Your task to perform on an android device: Open display settings Image 0: 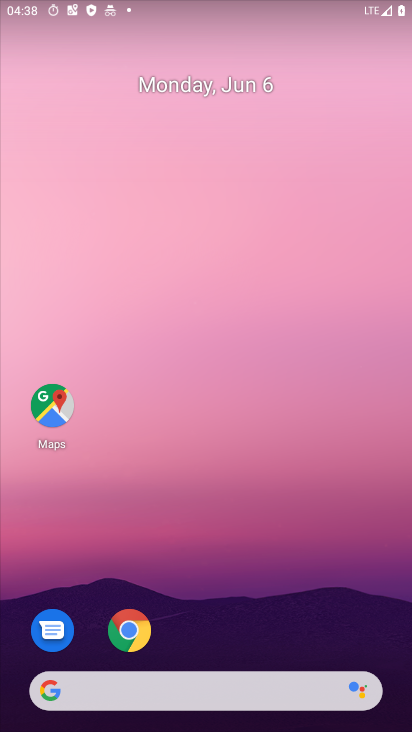
Step 0: drag from (256, 627) to (196, 61)
Your task to perform on an android device: Open display settings Image 1: 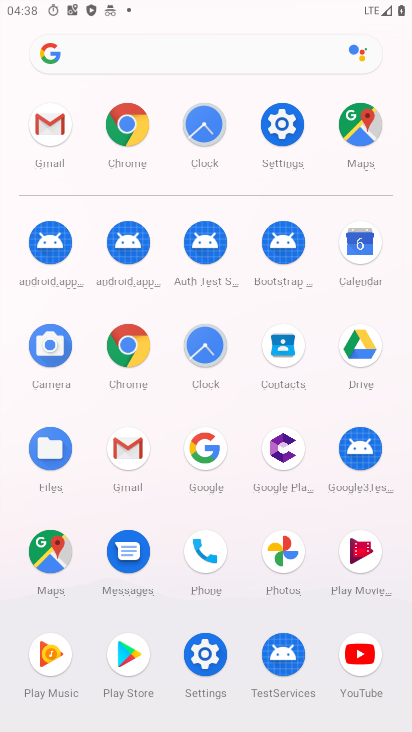
Step 1: click (190, 662)
Your task to perform on an android device: Open display settings Image 2: 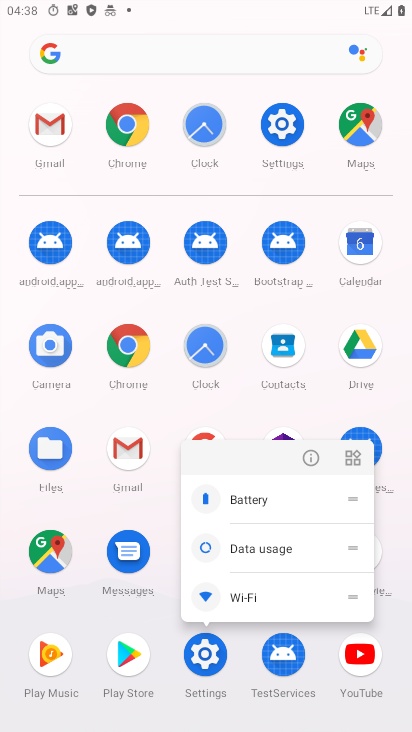
Step 2: click (206, 653)
Your task to perform on an android device: Open display settings Image 3: 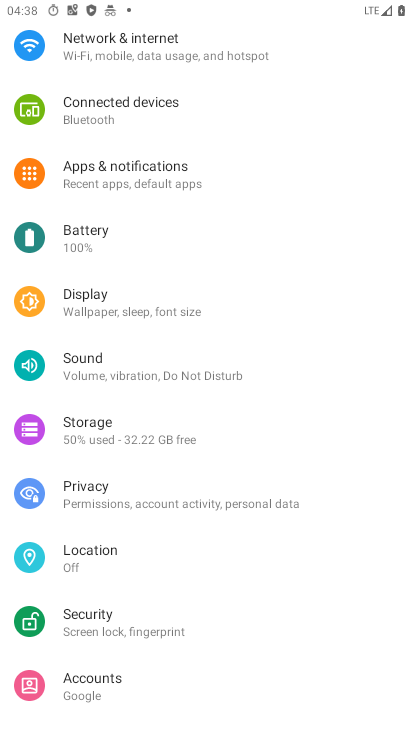
Step 3: click (82, 289)
Your task to perform on an android device: Open display settings Image 4: 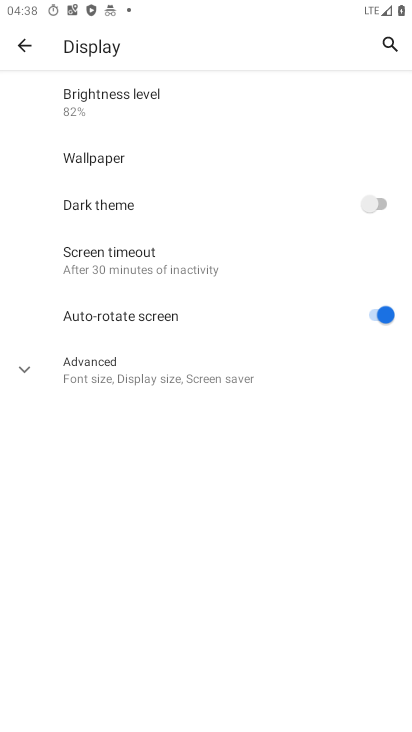
Step 4: task complete